Your task to perform on an android device: Go to accessibility settings Image 0: 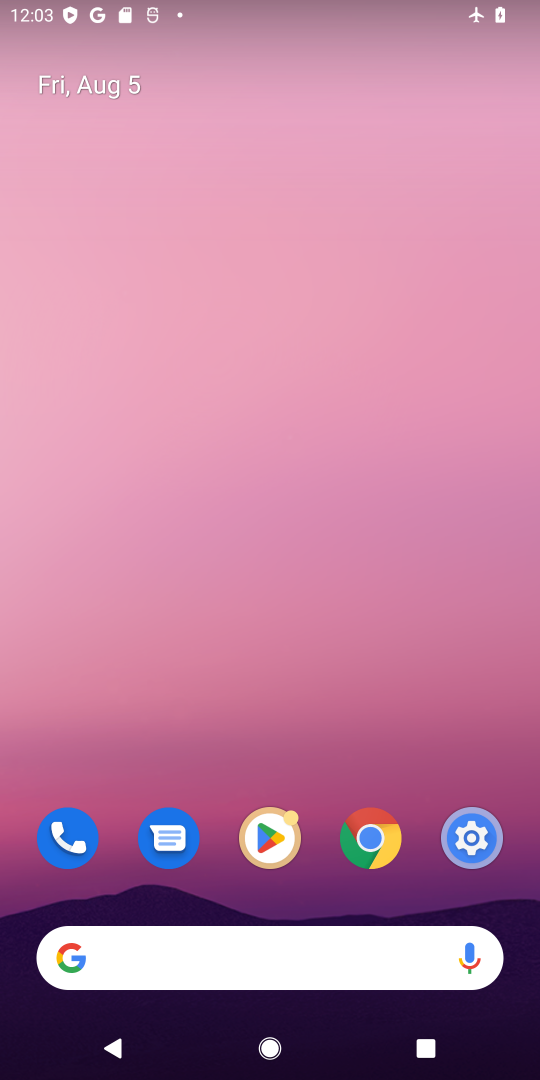
Step 0: click (466, 826)
Your task to perform on an android device: Go to accessibility settings Image 1: 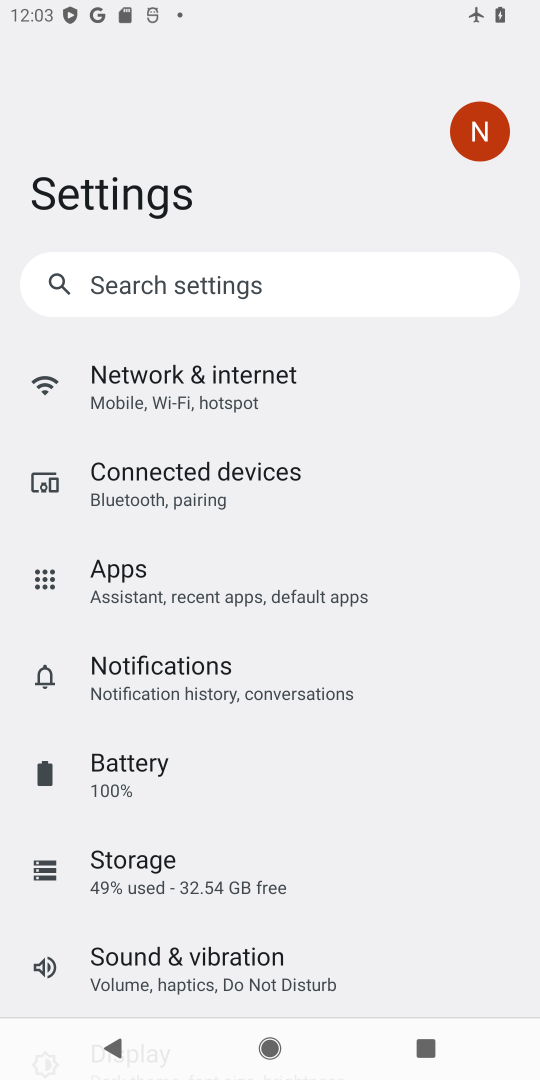
Step 1: task complete